Your task to perform on an android device: all mails in gmail Image 0: 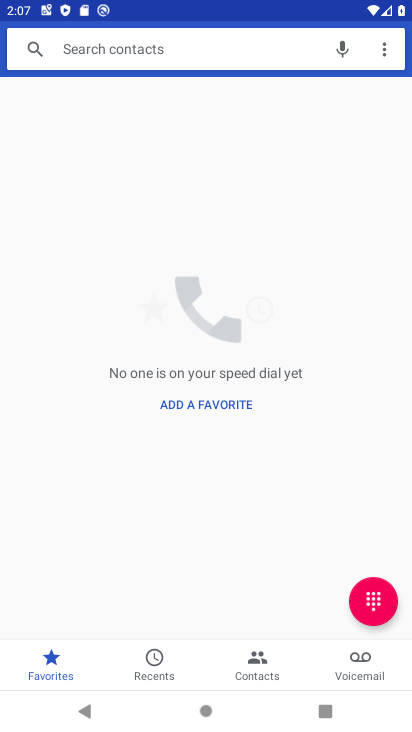
Step 0: press home button
Your task to perform on an android device: all mails in gmail Image 1: 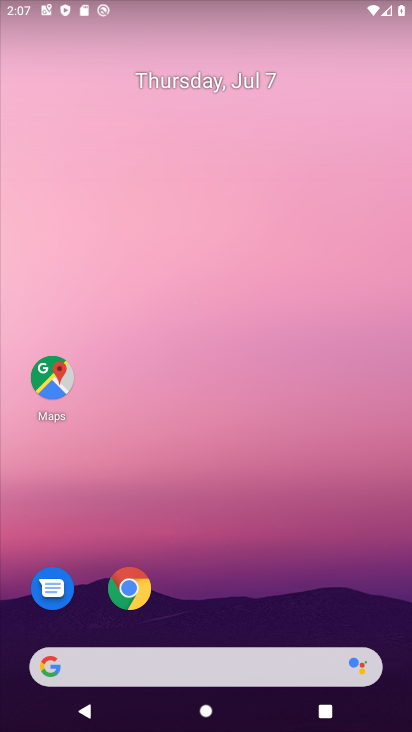
Step 1: drag from (41, 704) to (88, 200)
Your task to perform on an android device: all mails in gmail Image 2: 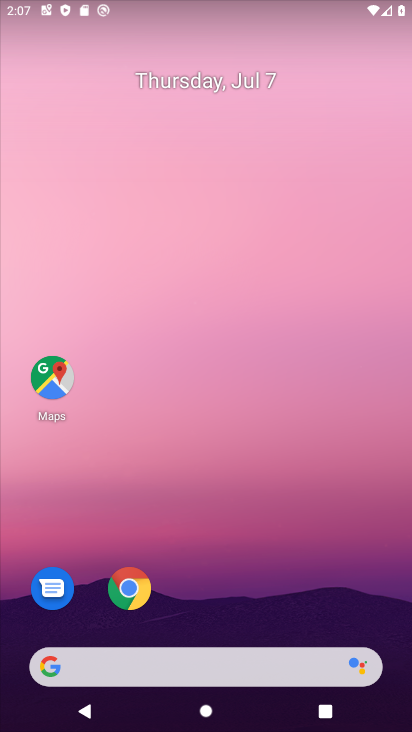
Step 2: drag from (49, 665) to (192, 88)
Your task to perform on an android device: all mails in gmail Image 3: 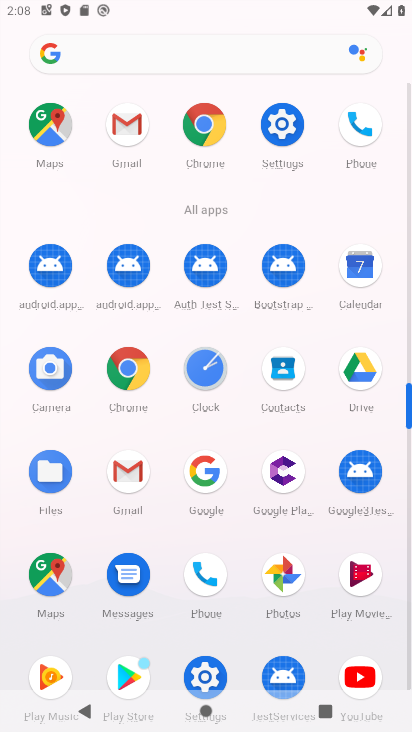
Step 3: click (120, 130)
Your task to perform on an android device: all mails in gmail Image 4: 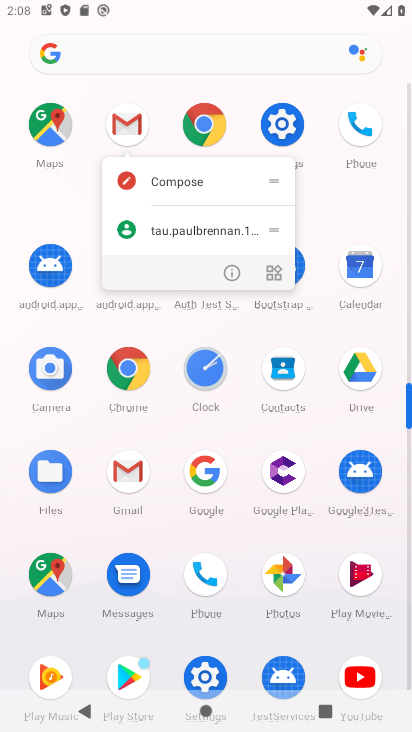
Step 4: click (120, 129)
Your task to perform on an android device: all mails in gmail Image 5: 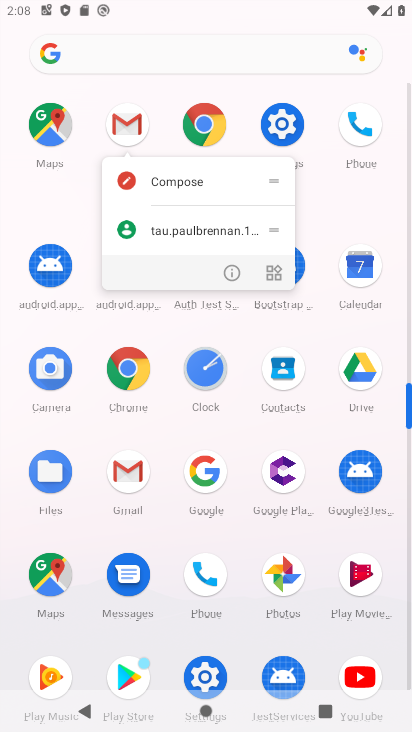
Step 5: click (121, 110)
Your task to perform on an android device: all mails in gmail Image 6: 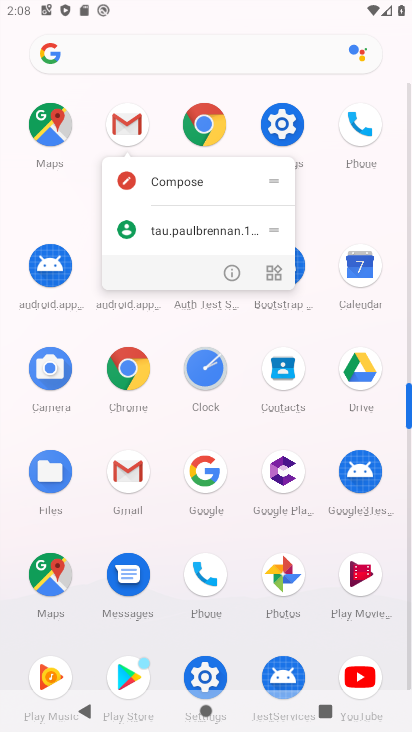
Step 6: click (123, 119)
Your task to perform on an android device: all mails in gmail Image 7: 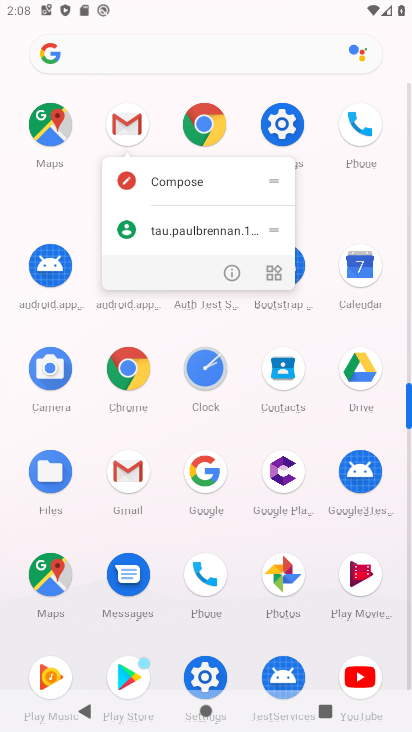
Step 7: click (122, 118)
Your task to perform on an android device: all mails in gmail Image 8: 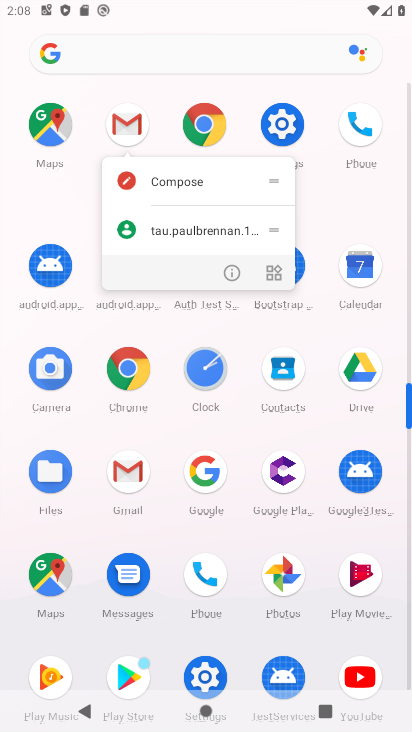
Step 8: click (120, 127)
Your task to perform on an android device: all mails in gmail Image 9: 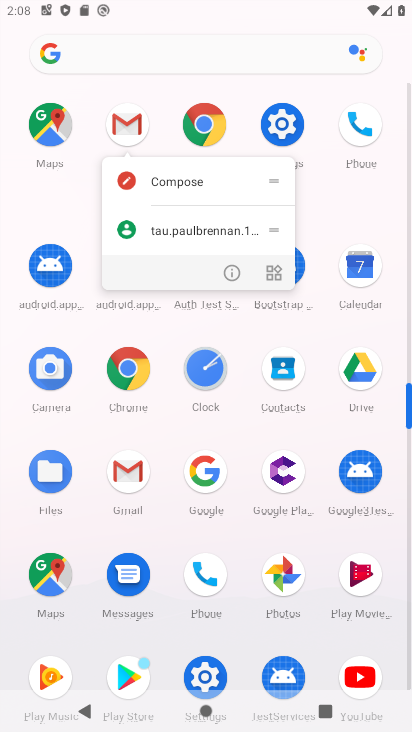
Step 9: click (125, 121)
Your task to perform on an android device: all mails in gmail Image 10: 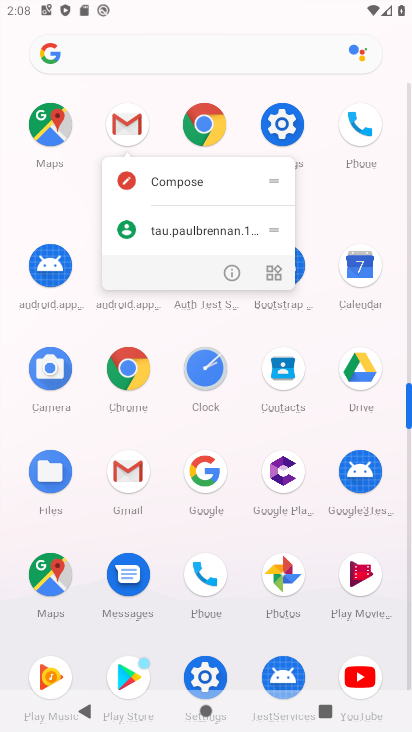
Step 10: click (131, 122)
Your task to perform on an android device: all mails in gmail Image 11: 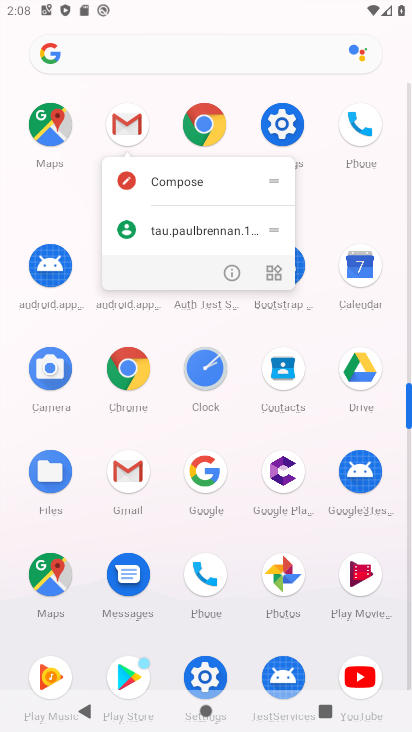
Step 11: click (117, 116)
Your task to perform on an android device: all mails in gmail Image 12: 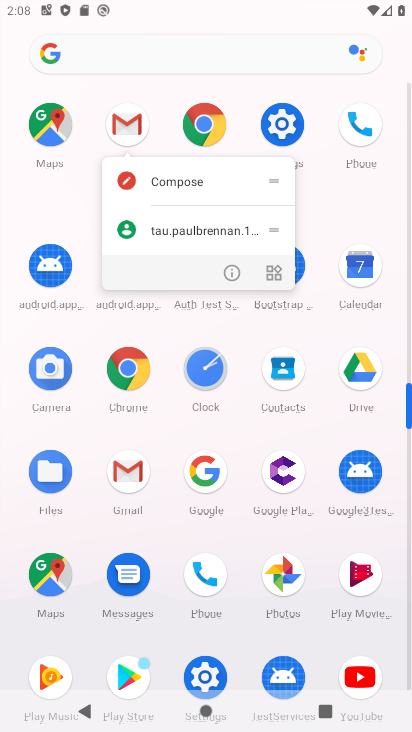
Step 12: click (118, 123)
Your task to perform on an android device: all mails in gmail Image 13: 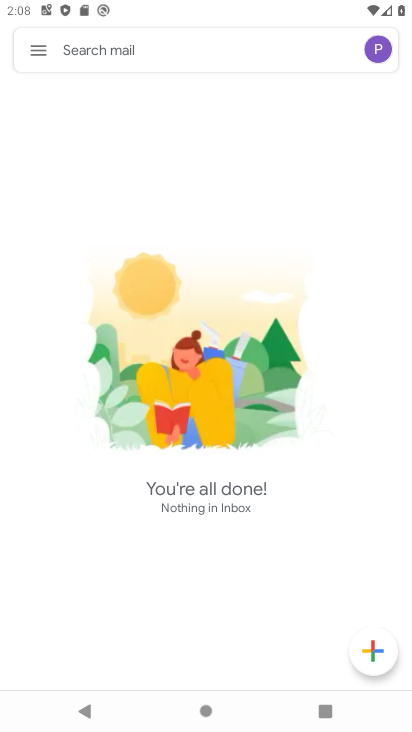
Step 13: click (39, 53)
Your task to perform on an android device: all mails in gmail Image 14: 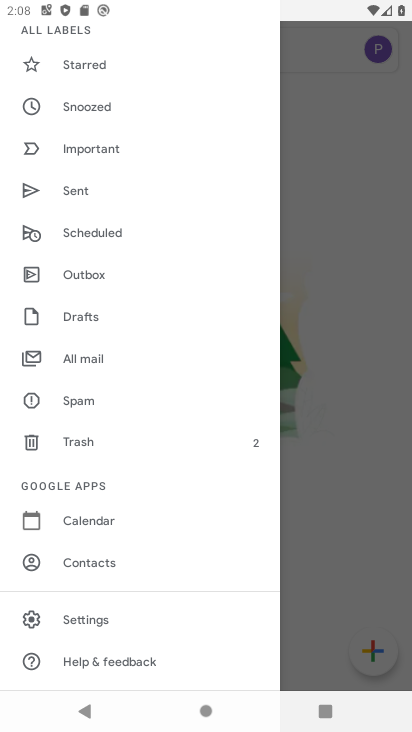
Step 14: click (72, 350)
Your task to perform on an android device: all mails in gmail Image 15: 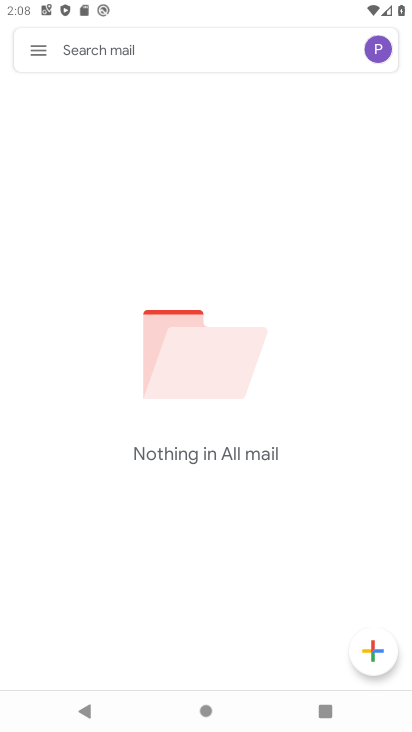
Step 15: task complete